Your task to perform on an android device: What's the weather? Image 0: 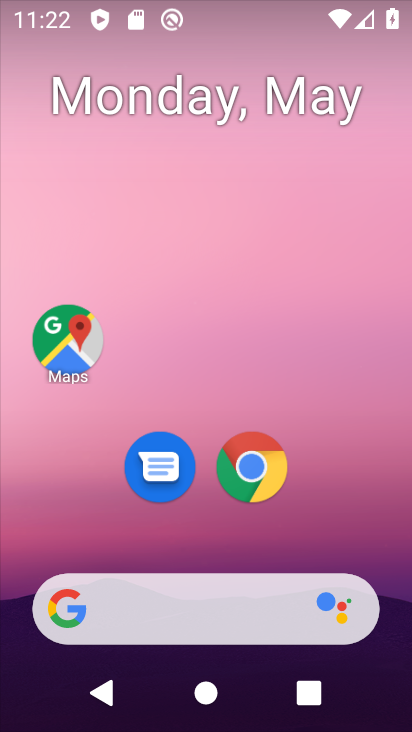
Step 0: click (253, 609)
Your task to perform on an android device: What's the weather? Image 1: 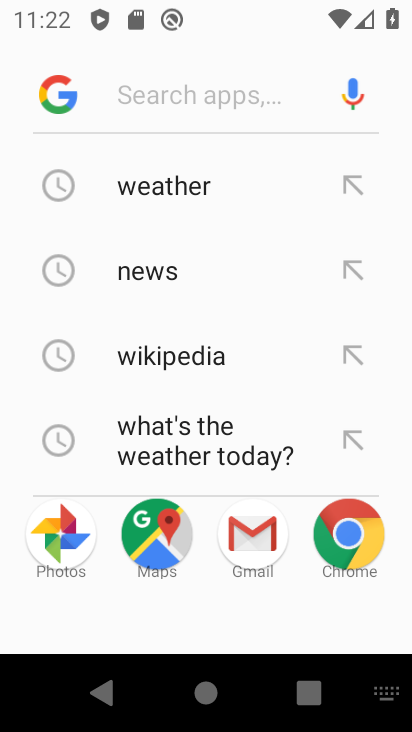
Step 1: click (188, 178)
Your task to perform on an android device: What's the weather? Image 2: 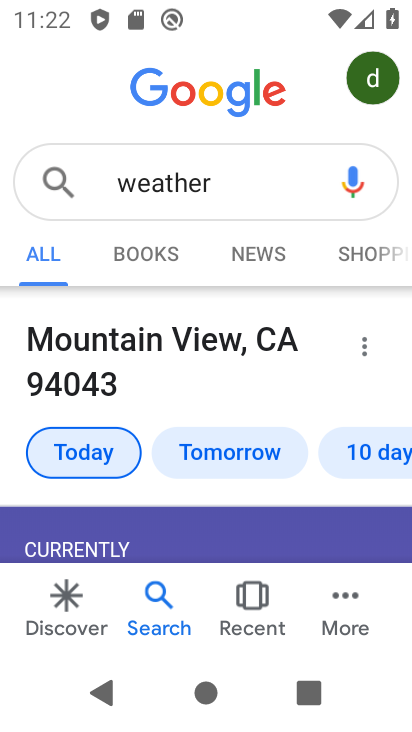
Step 2: task complete